Your task to perform on an android device: refresh tabs in the chrome app Image 0: 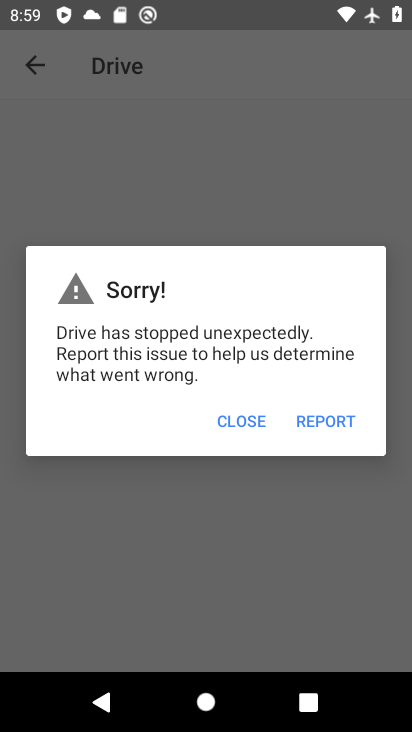
Step 0: press home button
Your task to perform on an android device: refresh tabs in the chrome app Image 1: 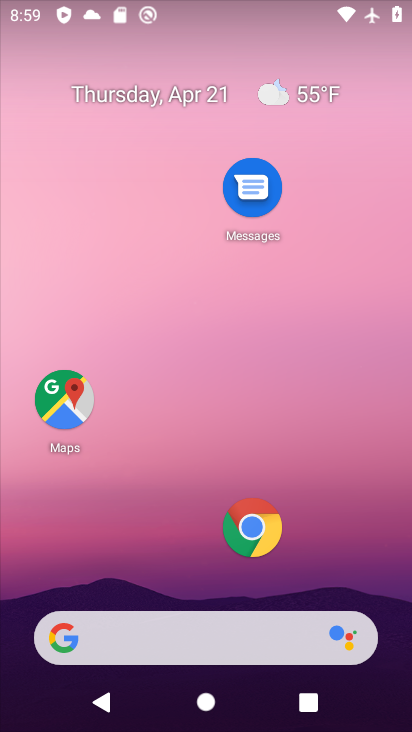
Step 1: drag from (173, 637) to (300, 124)
Your task to perform on an android device: refresh tabs in the chrome app Image 2: 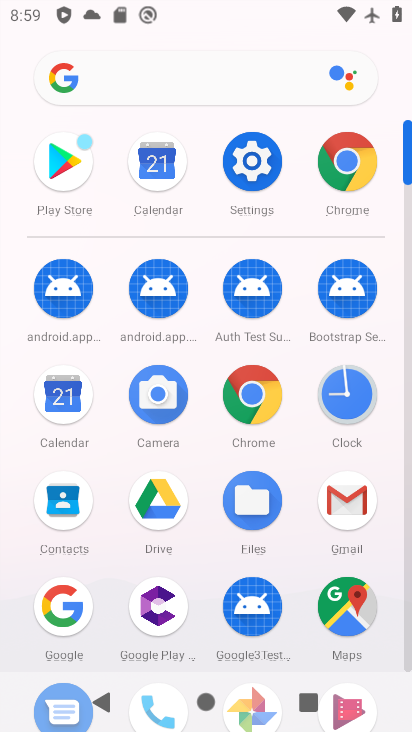
Step 2: click (340, 173)
Your task to perform on an android device: refresh tabs in the chrome app Image 3: 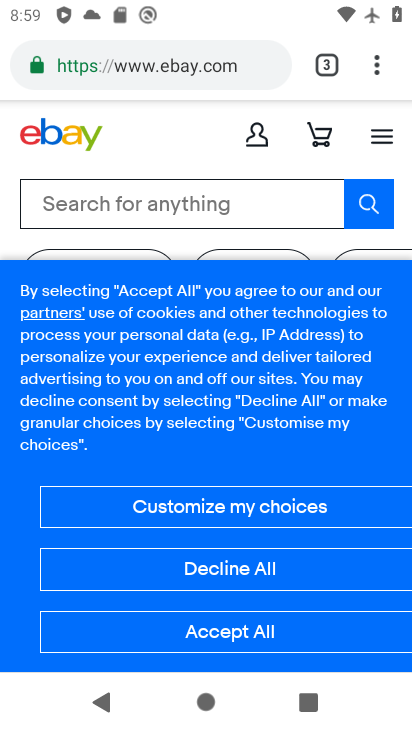
Step 3: click (371, 81)
Your task to perform on an android device: refresh tabs in the chrome app Image 4: 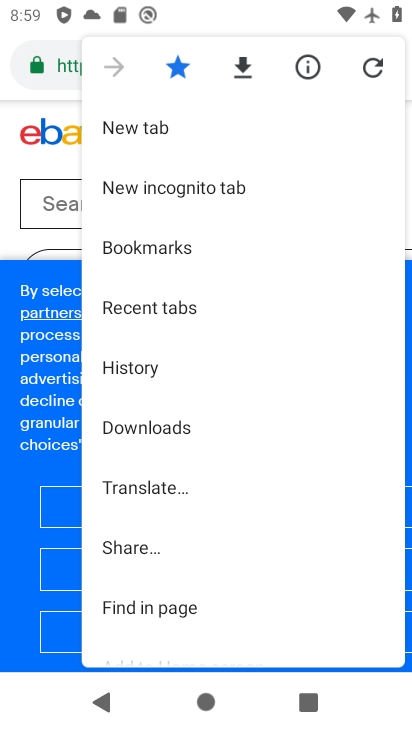
Step 4: click (369, 63)
Your task to perform on an android device: refresh tabs in the chrome app Image 5: 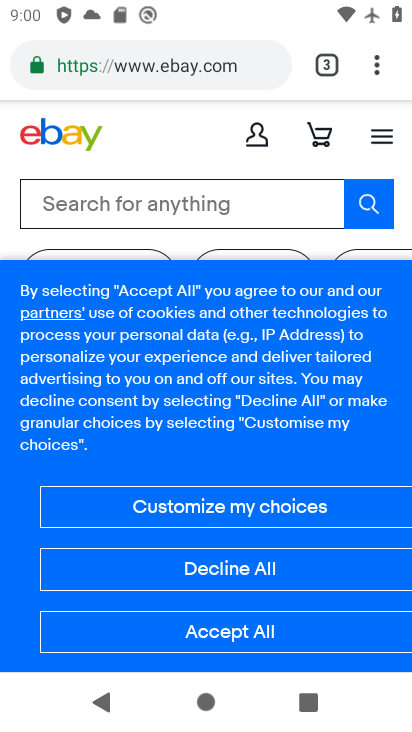
Step 5: task complete